Your task to perform on an android device: Open the map Image 0: 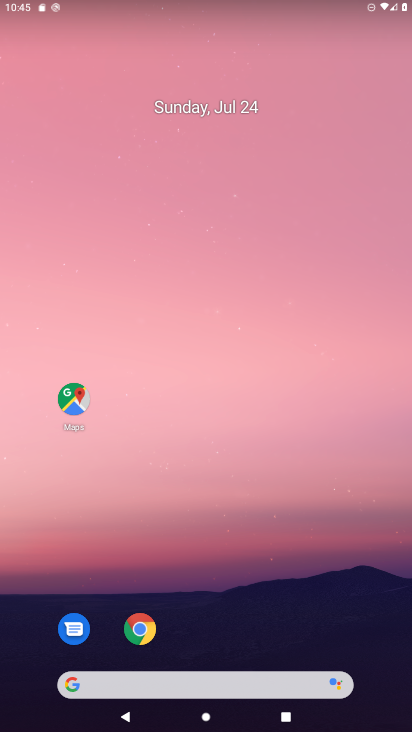
Step 0: click (73, 392)
Your task to perform on an android device: Open the map Image 1: 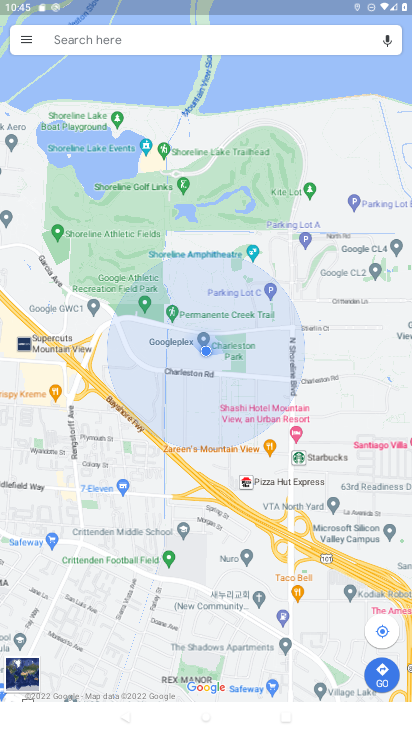
Step 1: task complete